Your task to perform on an android device: turn on improve location accuracy Image 0: 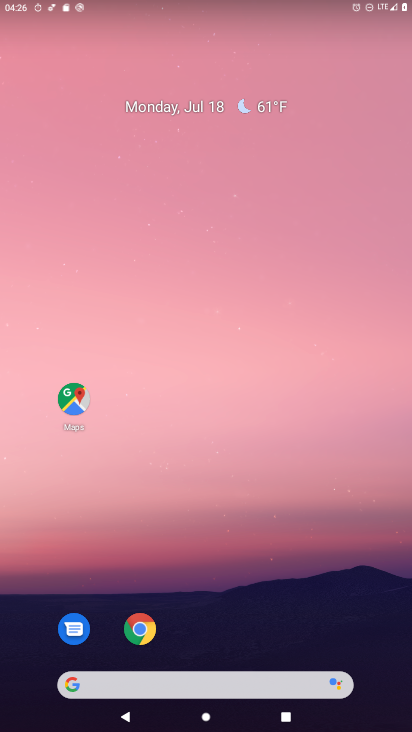
Step 0: drag from (169, 684) to (185, 75)
Your task to perform on an android device: turn on improve location accuracy Image 1: 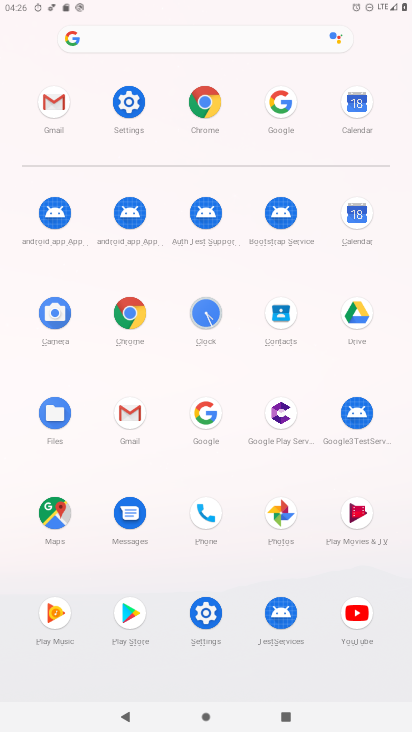
Step 1: click (129, 102)
Your task to perform on an android device: turn on improve location accuracy Image 2: 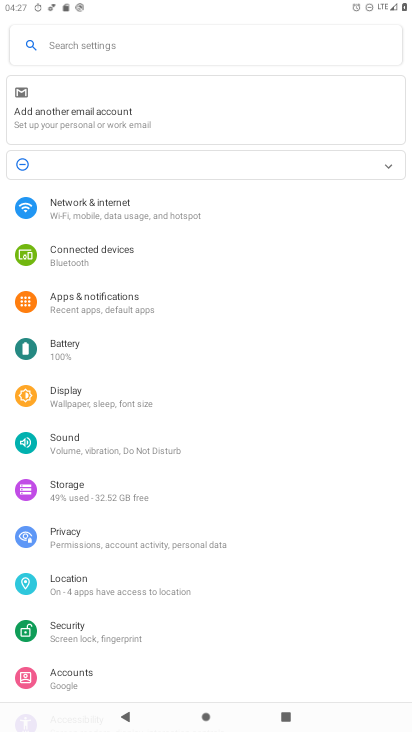
Step 2: drag from (93, 407) to (122, 363)
Your task to perform on an android device: turn on improve location accuracy Image 3: 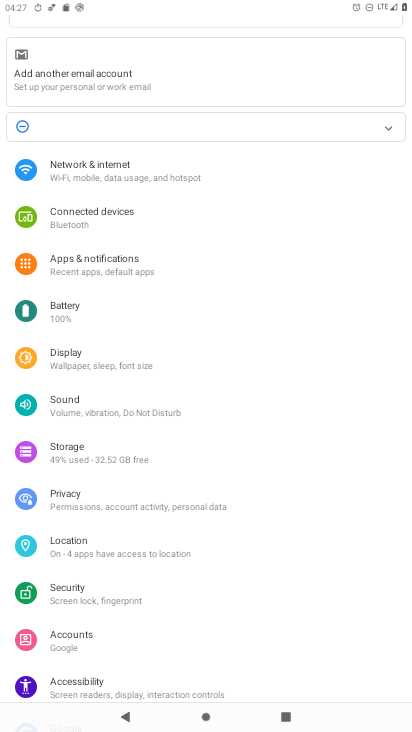
Step 3: drag from (110, 482) to (165, 423)
Your task to perform on an android device: turn on improve location accuracy Image 4: 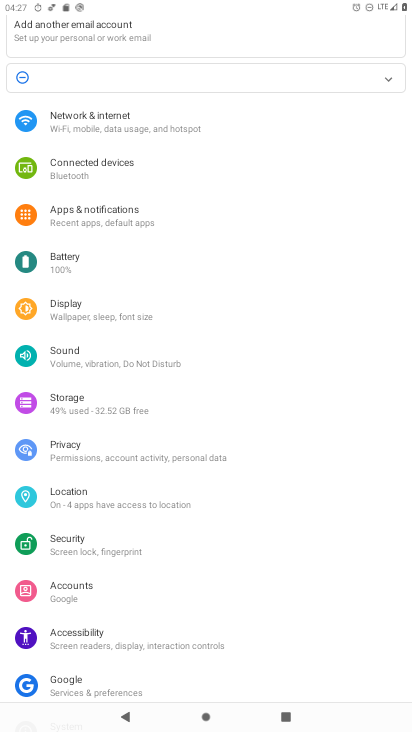
Step 4: click (73, 499)
Your task to perform on an android device: turn on improve location accuracy Image 5: 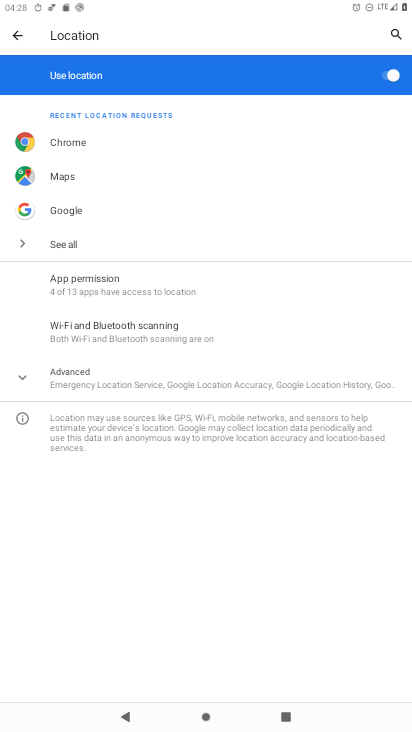
Step 5: click (133, 386)
Your task to perform on an android device: turn on improve location accuracy Image 6: 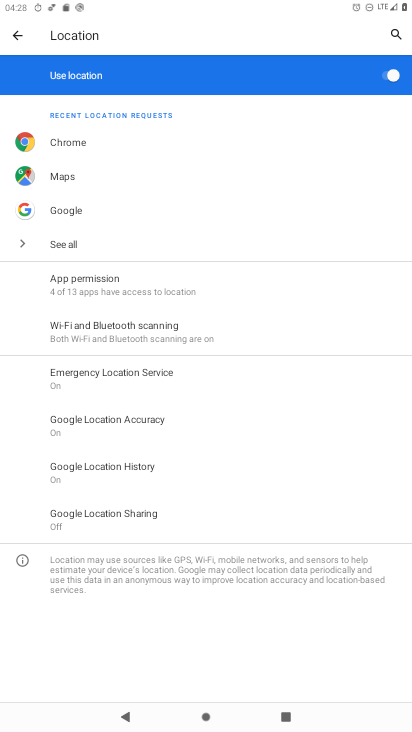
Step 6: click (135, 466)
Your task to perform on an android device: turn on improve location accuracy Image 7: 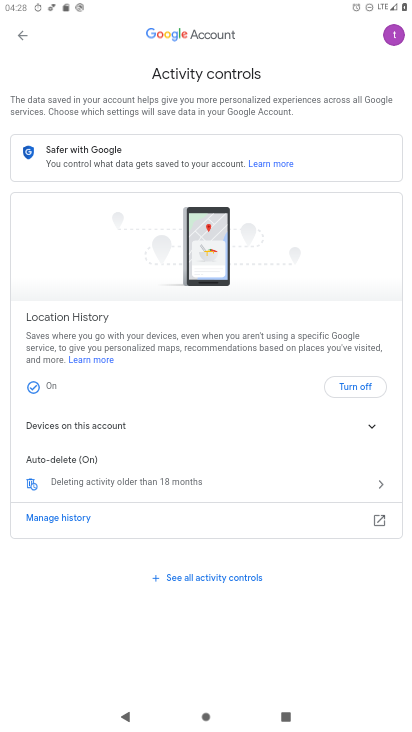
Step 7: task complete